Your task to perform on an android device: Open location settings Image 0: 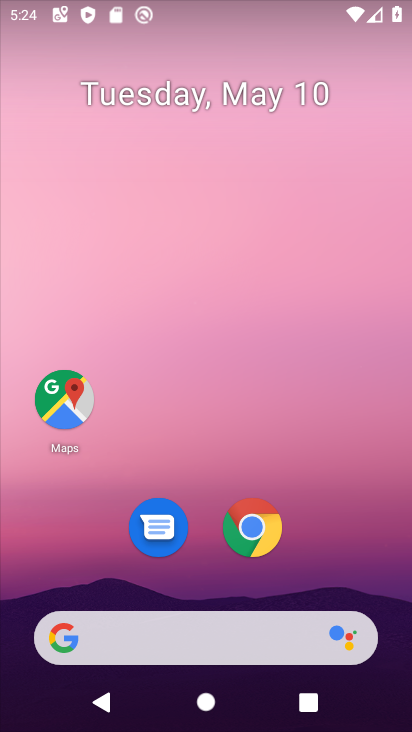
Step 0: drag from (308, 574) to (386, 2)
Your task to perform on an android device: Open location settings Image 1: 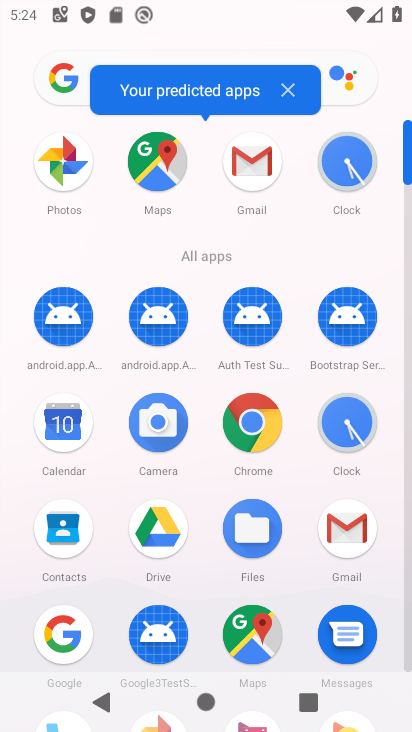
Step 1: drag from (322, 510) to (324, 188)
Your task to perform on an android device: Open location settings Image 2: 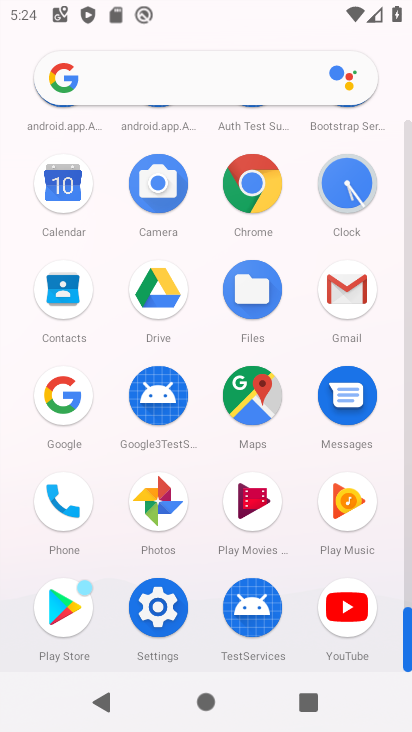
Step 2: click (185, 610)
Your task to perform on an android device: Open location settings Image 3: 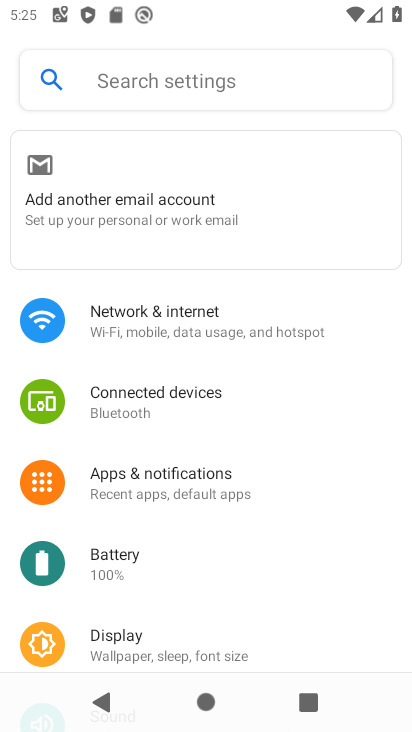
Step 3: drag from (264, 404) to (242, 96)
Your task to perform on an android device: Open location settings Image 4: 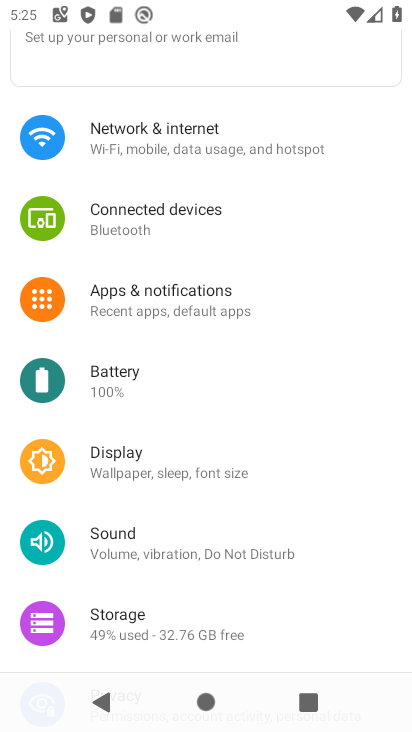
Step 4: drag from (143, 619) to (212, 272)
Your task to perform on an android device: Open location settings Image 5: 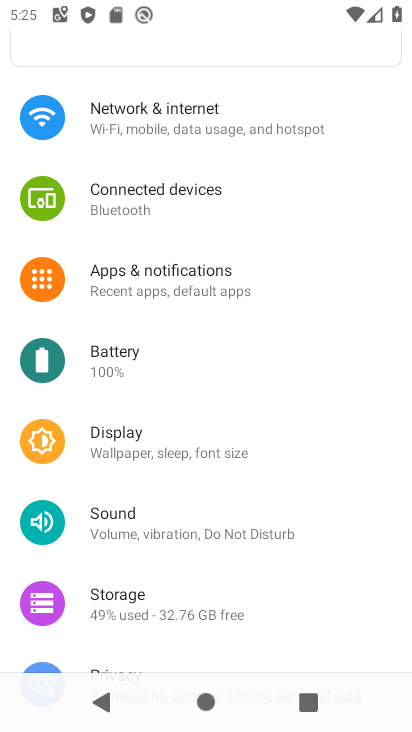
Step 5: drag from (157, 526) to (161, 159)
Your task to perform on an android device: Open location settings Image 6: 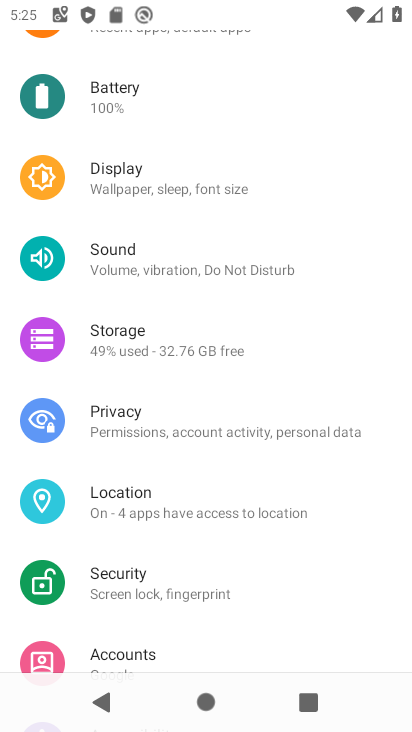
Step 6: click (173, 491)
Your task to perform on an android device: Open location settings Image 7: 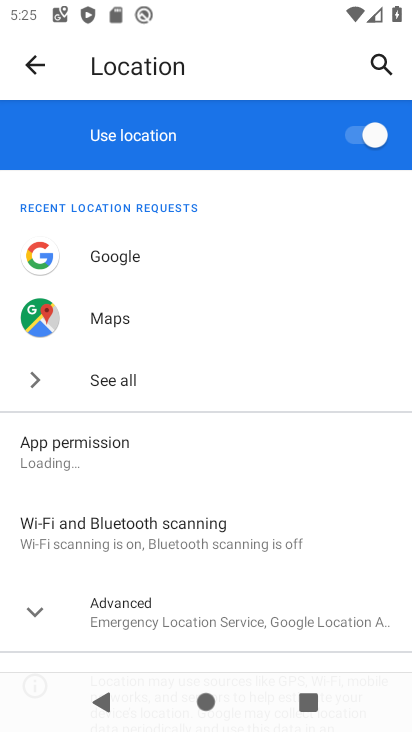
Step 7: task complete